Your task to perform on an android device: Open Google Chrome Image 0: 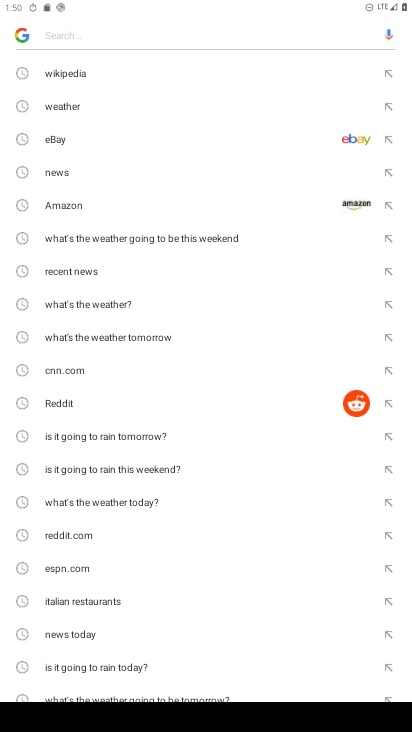
Step 0: press home button
Your task to perform on an android device: Open Google Chrome Image 1: 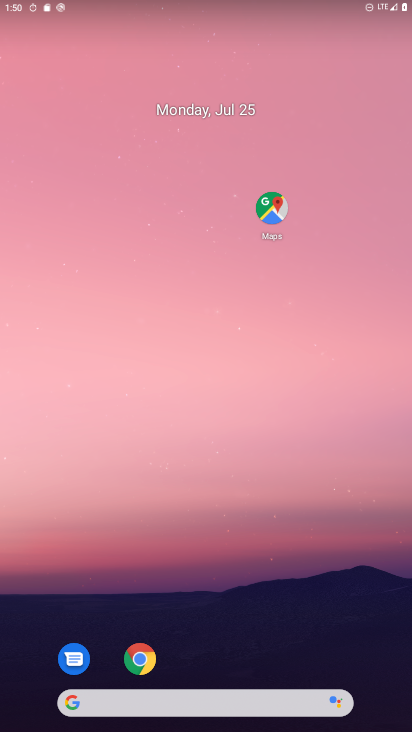
Step 1: click (139, 657)
Your task to perform on an android device: Open Google Chrome Image 2: 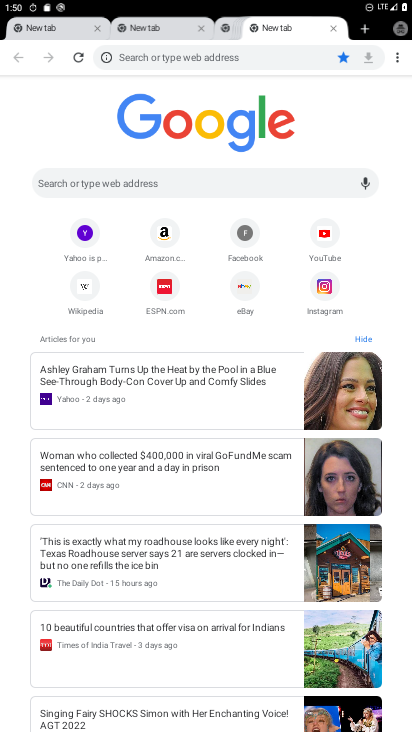
Step 2: task complete